Your task to perform on an android device: snooze an email in the gmail app Image 0: 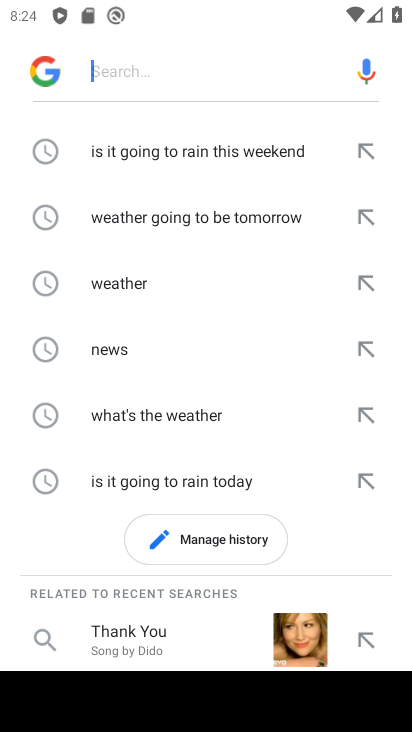
Step 0: press home button
Your task to perform on an android device: snooze an email in the gmail app Image 1: 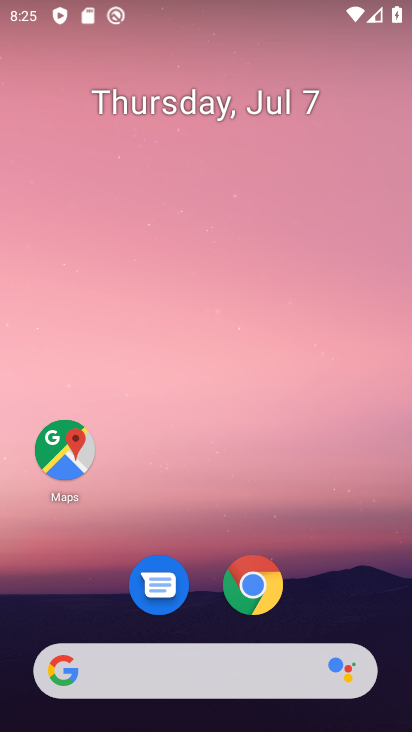
Step 1: drag from (320, 557) to (281, 0)
Your task to perform on an android device: snooze an email in the gmail app Image 2: 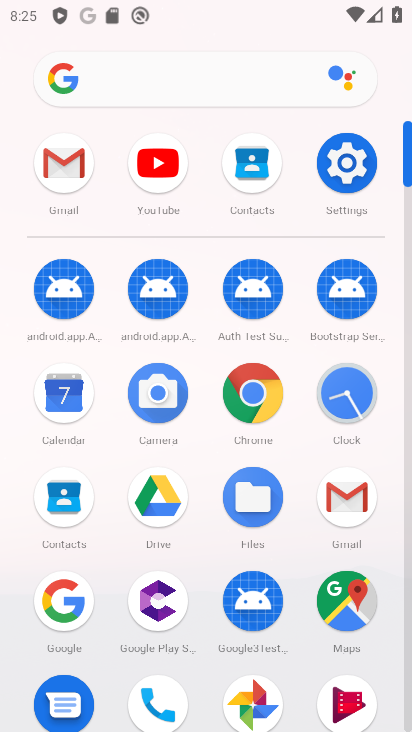
Step 2: click (68, 165)
Your task to perform on an android device: snooze an email in the gmail app Image 3: 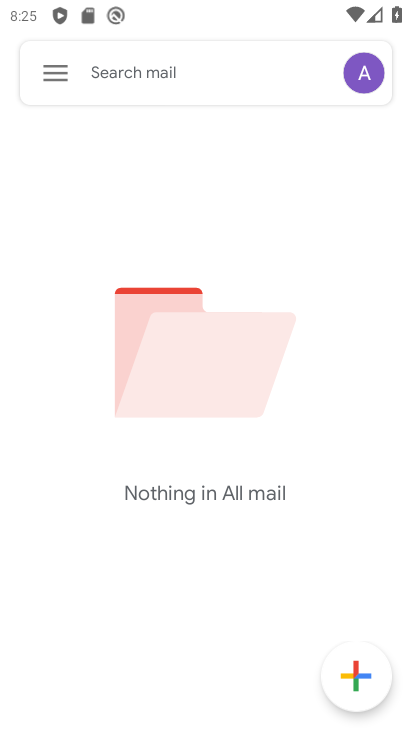
Step 3: click (60, 72)
Your task to perform on an android device: snooze an email in the gmail app Image 4: 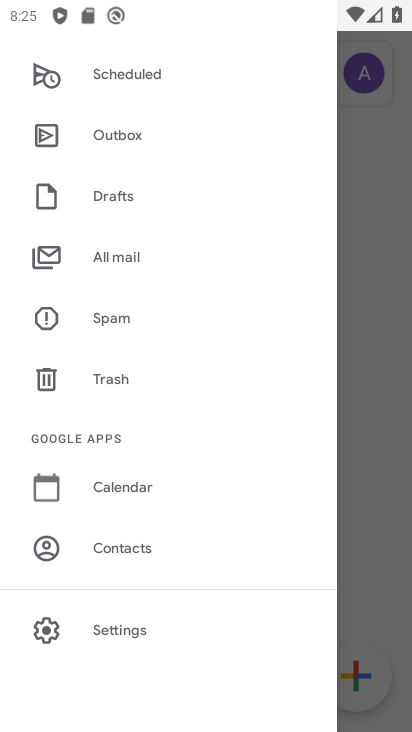
Step 4: click (108, 253)
Your task to perform on an android device: snooze an email in the gmail app Image 5: 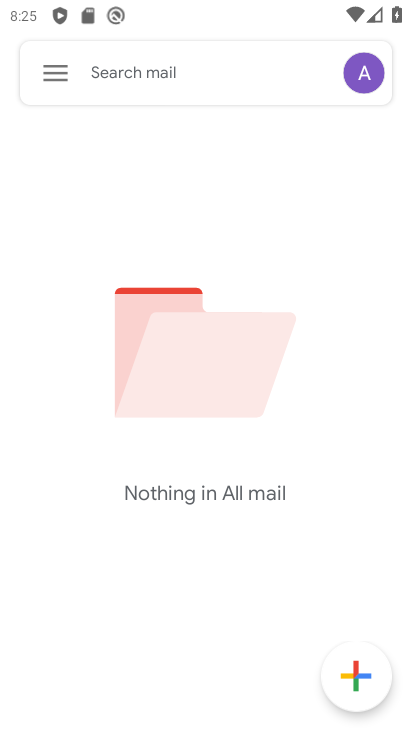
Step 5: task complete